Your task to perform on an android device: toggle priority inbox in the gmail app Image 0: 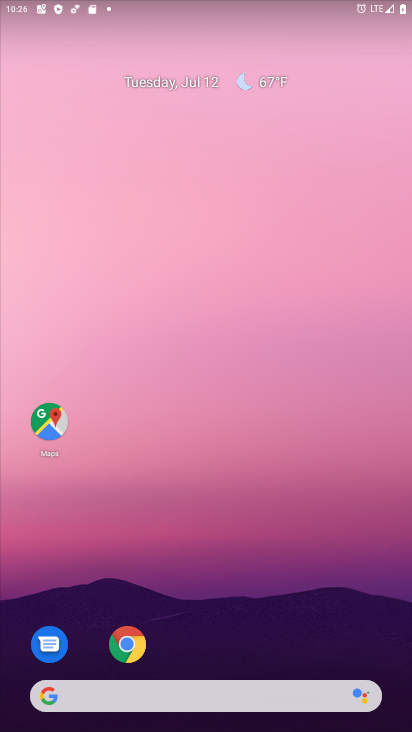
Step 0: drag from (181, 628) to (242, 228)
Your task to perform on an android device: toggle priority inbox in the gmail app Image 1: 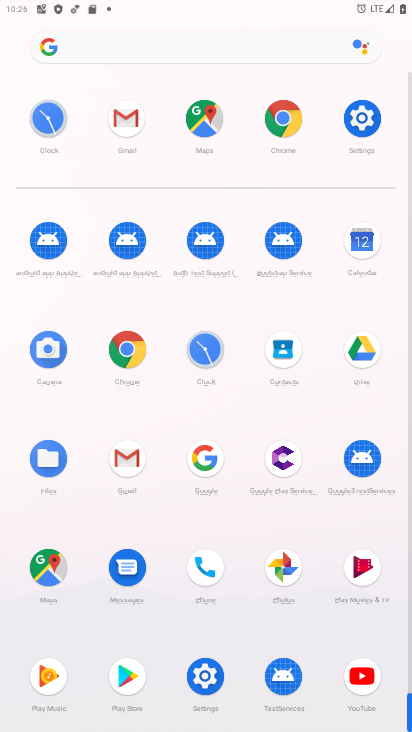
Step 1: click (122, 457)
Your task to perform on an android device: toggle priority inbox in the gmail app Image 2: 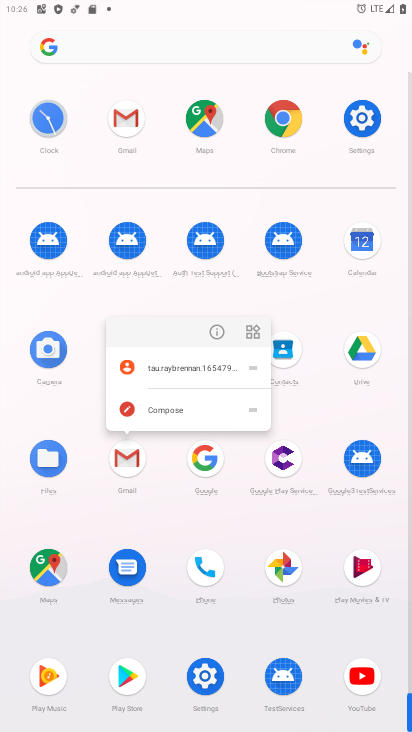
Step 2: click (216, 327)
Your task to perform on an android device: toggle priority inbox in the gmail app Image 3: 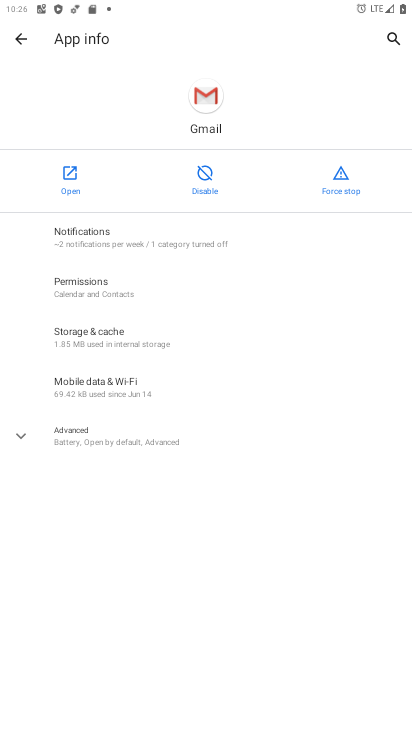
Step 3: click (69, 179)
Your task to perform on an android device: toggle priority inbox in the gmail app Image 4: 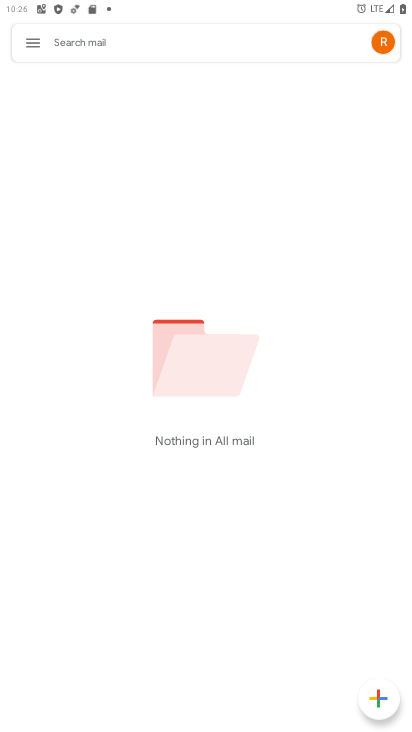
Step 4: click (40, 50)
Your task to perform on an android device: toggle priority inbox in the gmail app Image 5: 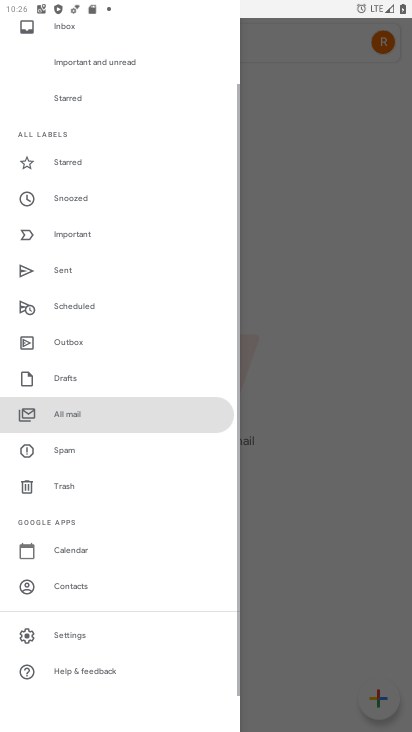
Step 5: click (74, 623)
Your task to perform on an android device: toggle priority inbox in the gmail app Image 6: 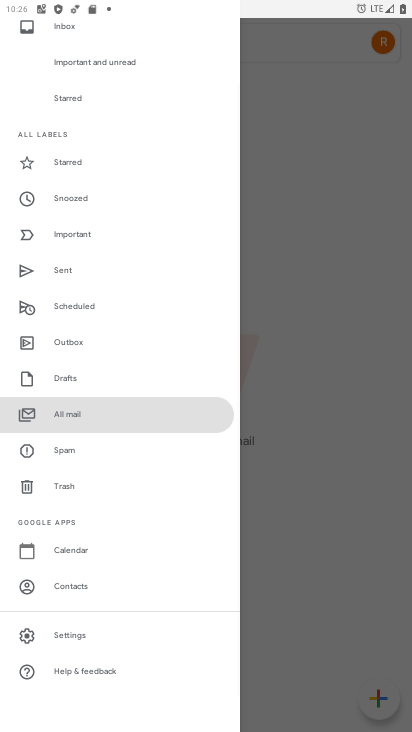
Step 6: click (74, 622)
Your task to perform on an android device: toggle priority inbox in the gmail app Image 7: 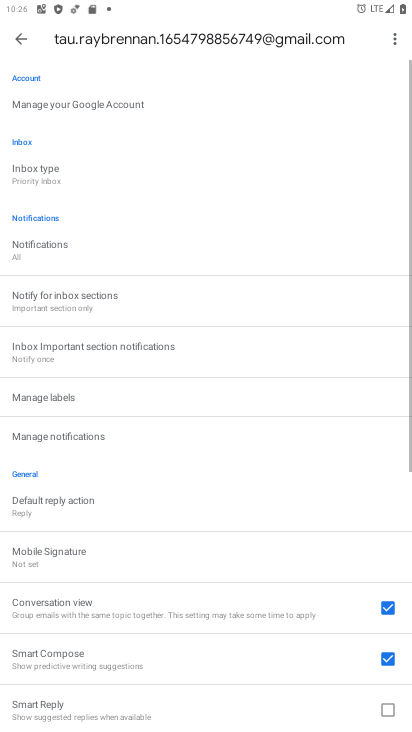
Step 7: drag from (158, 503) to (233, 214)
Your task to perform on an android device: toggle priority inbox in the gmail app Image 8: 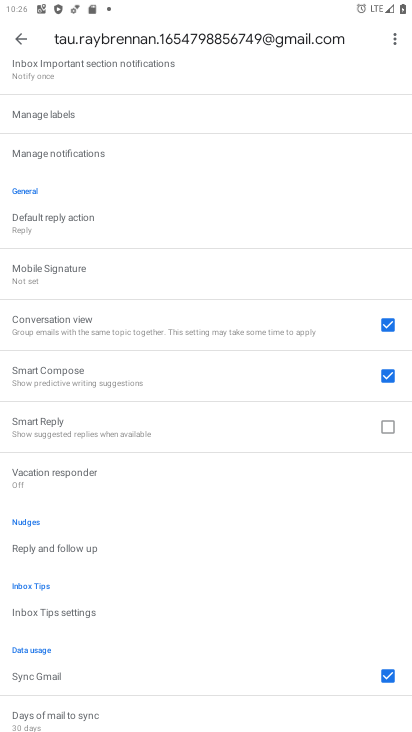
Step 8: drag from (174, 550) to (243, 303)
Your task to perform on an android device: toggle priority inbox in the gmail app Image 9: 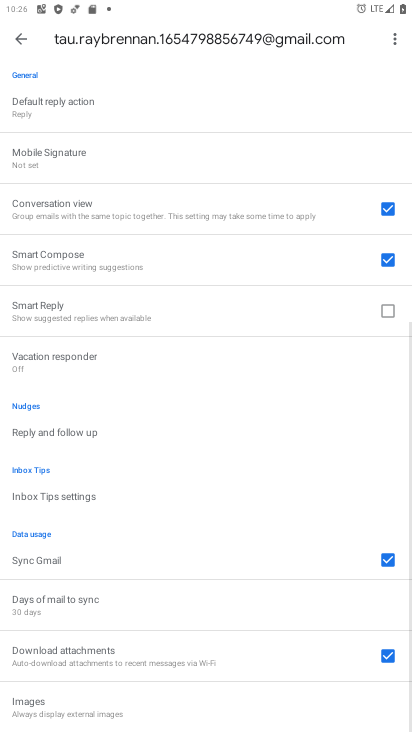
Step 9: drag from (156, 285) to (302, 694)
Your task to perform on an android device: toggle priority inbox in the gmail app Image 10: 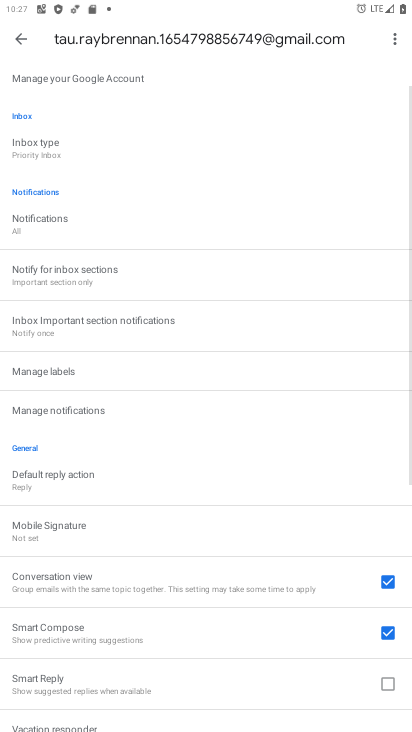
Step 10: click (117, 167)
Your task to perform on an android device: toggle priority inbox in the gmail app Image 11: 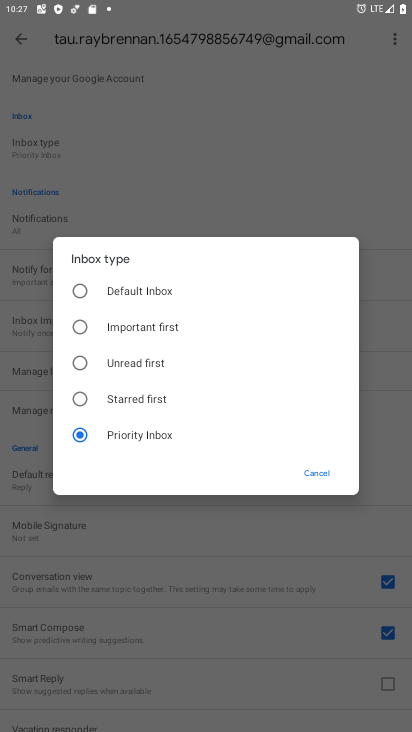
Step 11: click (86, 291)
Your task to perform on an android device: toggle priority inbox in the gmail app Image 12: 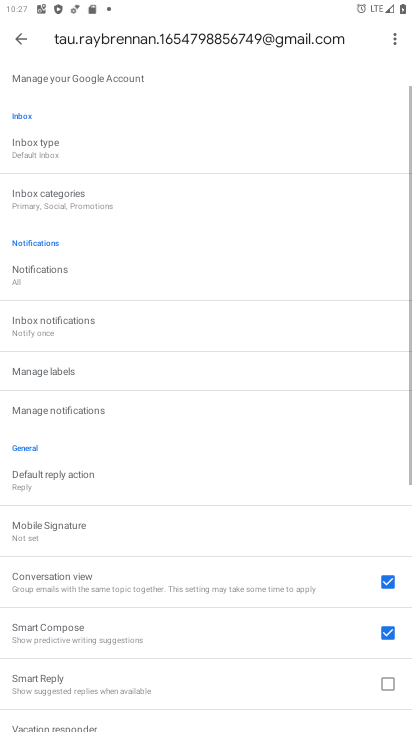
Step 12: task complete